Your task to perform on an android device: Go to internet settings Image 0: 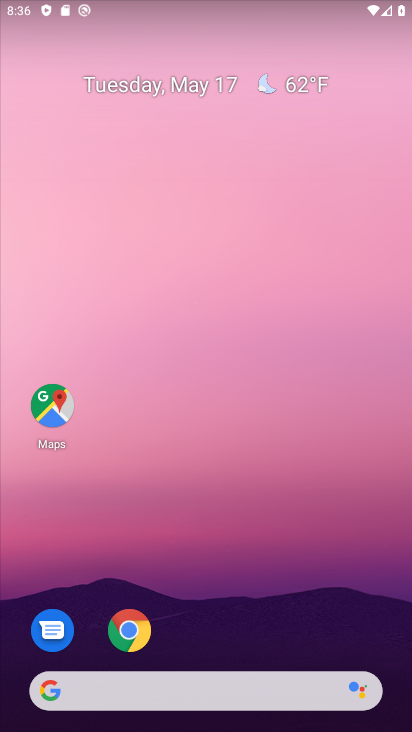
Step 0: drag from (229, 500) to (323, 186)
Your task to perform on an android device: Go to internet settings Image 1: 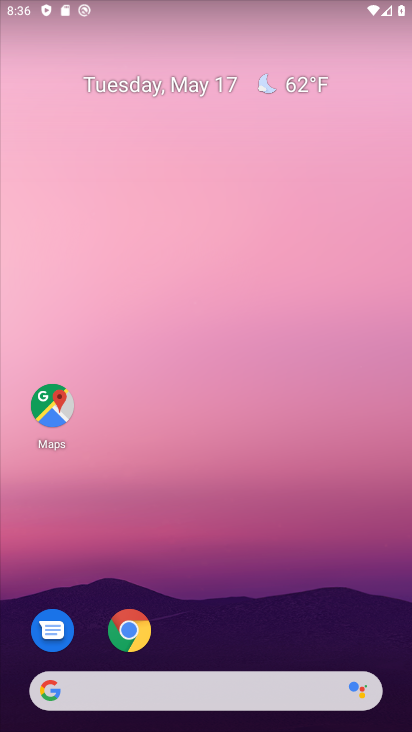
Step 1: drag from (173, 664) to (230, 376)
Your task to perform on an android device: Go to internet settings Image 2: 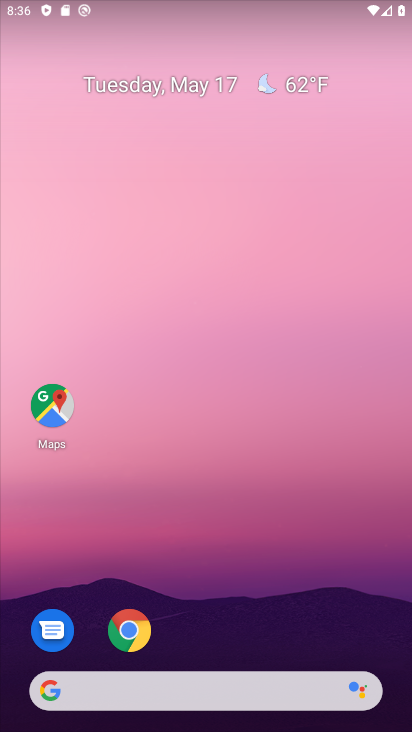
Step 2: drag from (206, 649) to (278, 230)
Your task to perform on an android device: Go to internet settings Image 3: 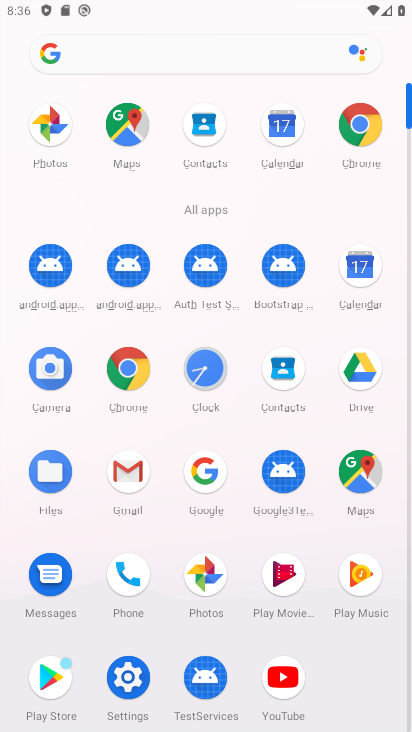
Step 3: click (134, 689)
Your task to perform on an android device: Go to internet settings Image 4: 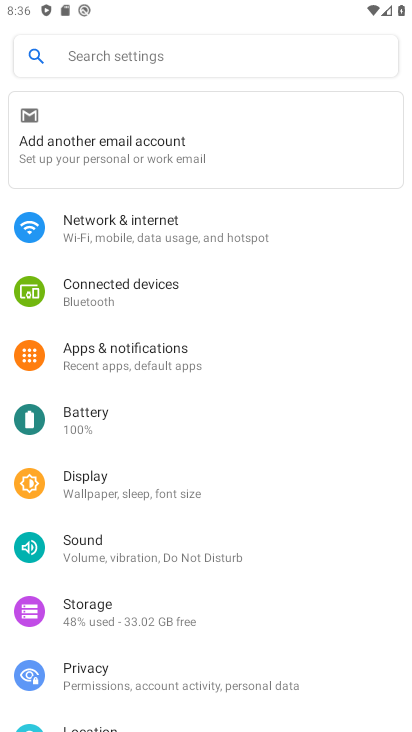
Step 4: click (176, 244)
Your task to perform on an android device: Go to internet settings Image 5: 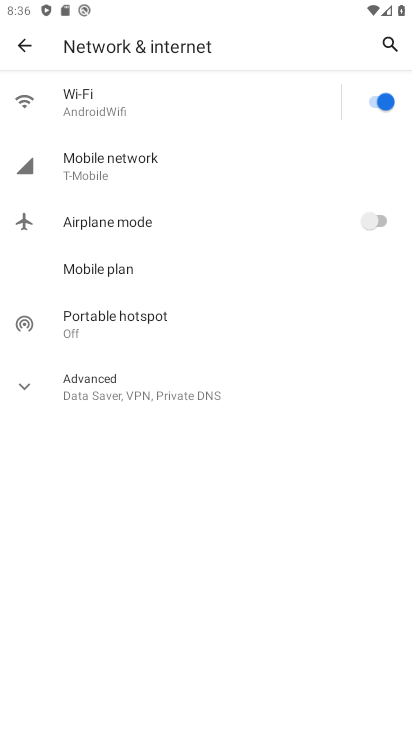
Step 5: click (171, 176)
Your task to perform on an android device: Go to internet settings Image 6: 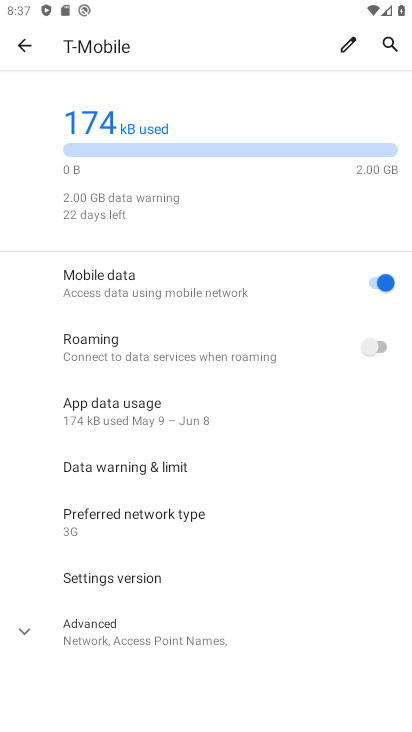
Step 6: task complete